Your task to perform on an android device: open app "Pandora - Music & Podcasts" (install if not already installed) and enter user name: "creator@yahoo.com" and password: "valuable" Image 0: 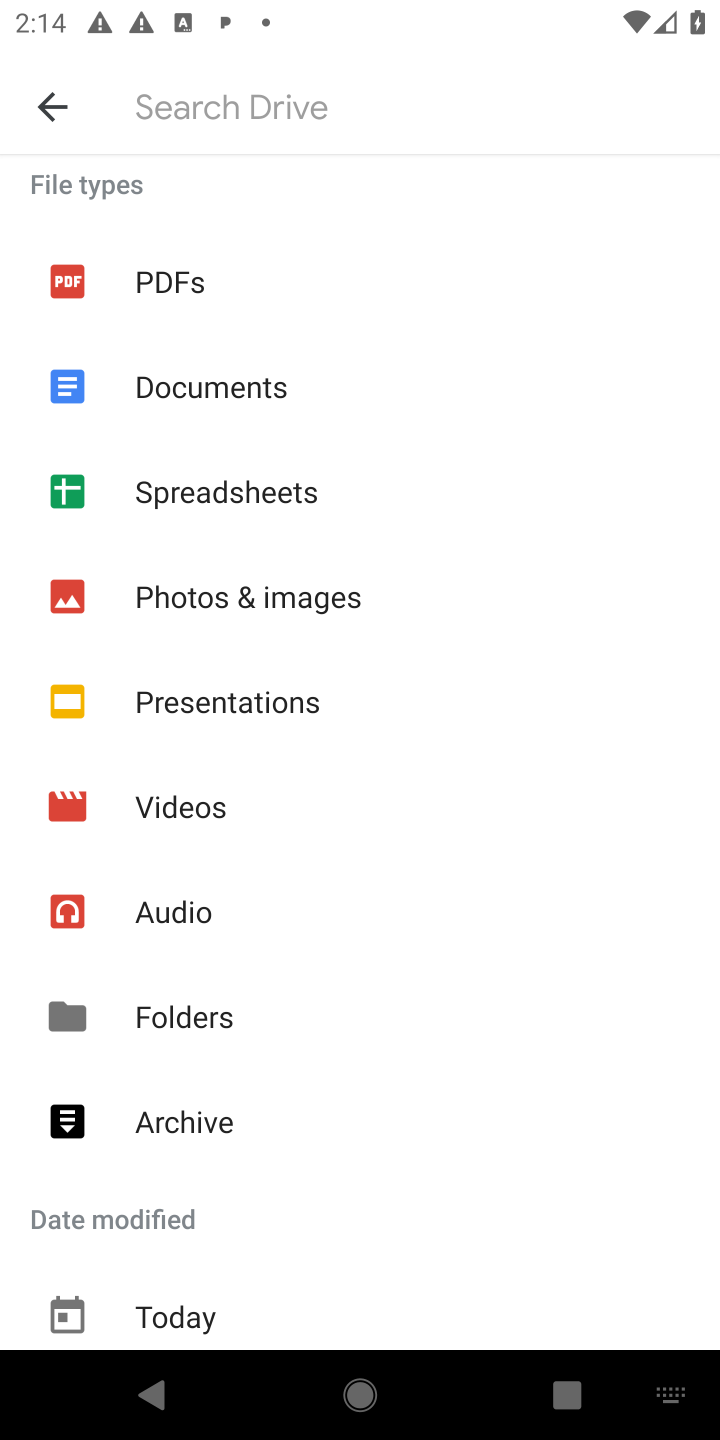
Step 0: press home button
Your task to perform on an android device: open app "Pandora - Music & Podcasts" (install if not already installed) and enter user name: "creator@yahoo.com" and password: "valuable" Image 1: 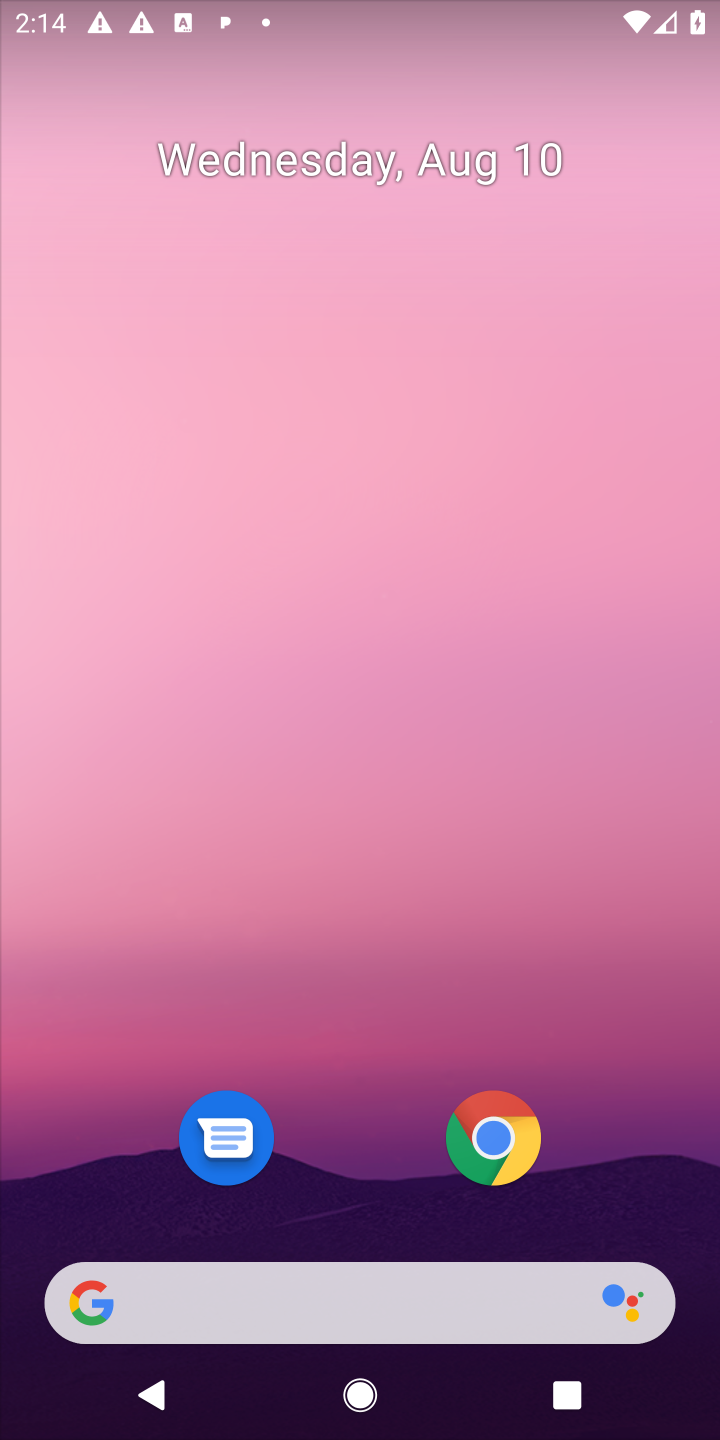
Step 1: drag from (373, 1146) to (446, 57)
Your task to perform on an android device: open app "Pandora - Music & Podcasts" (install if not already installed) and enter user name: "creator@yahoo.com" and password: "valuable" Image 2: 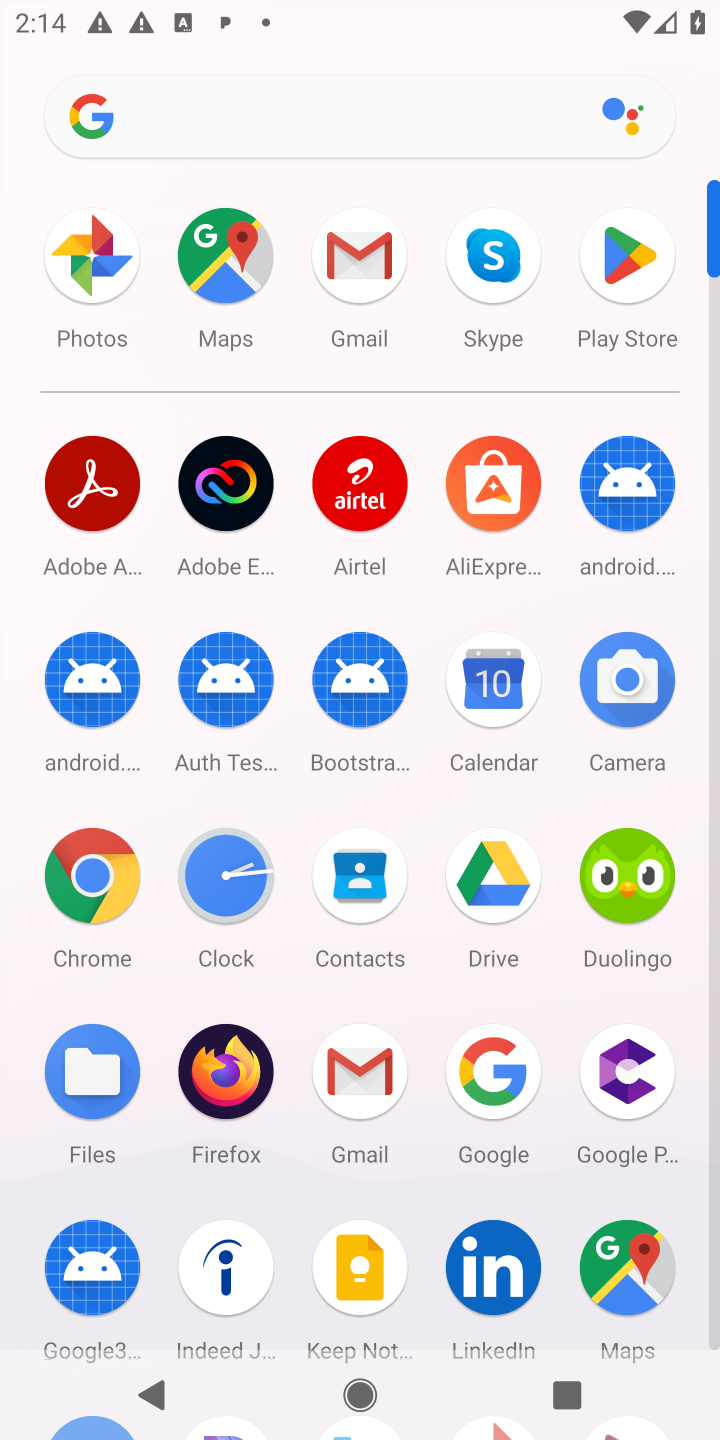
Step 2: click (613, 257)
Your task to perform on an android device: open app "Pandora - Music & Podcasts" (install if not already installed) and enter user name: "creator@yahoo.com" and password: "valuable" Image 3: 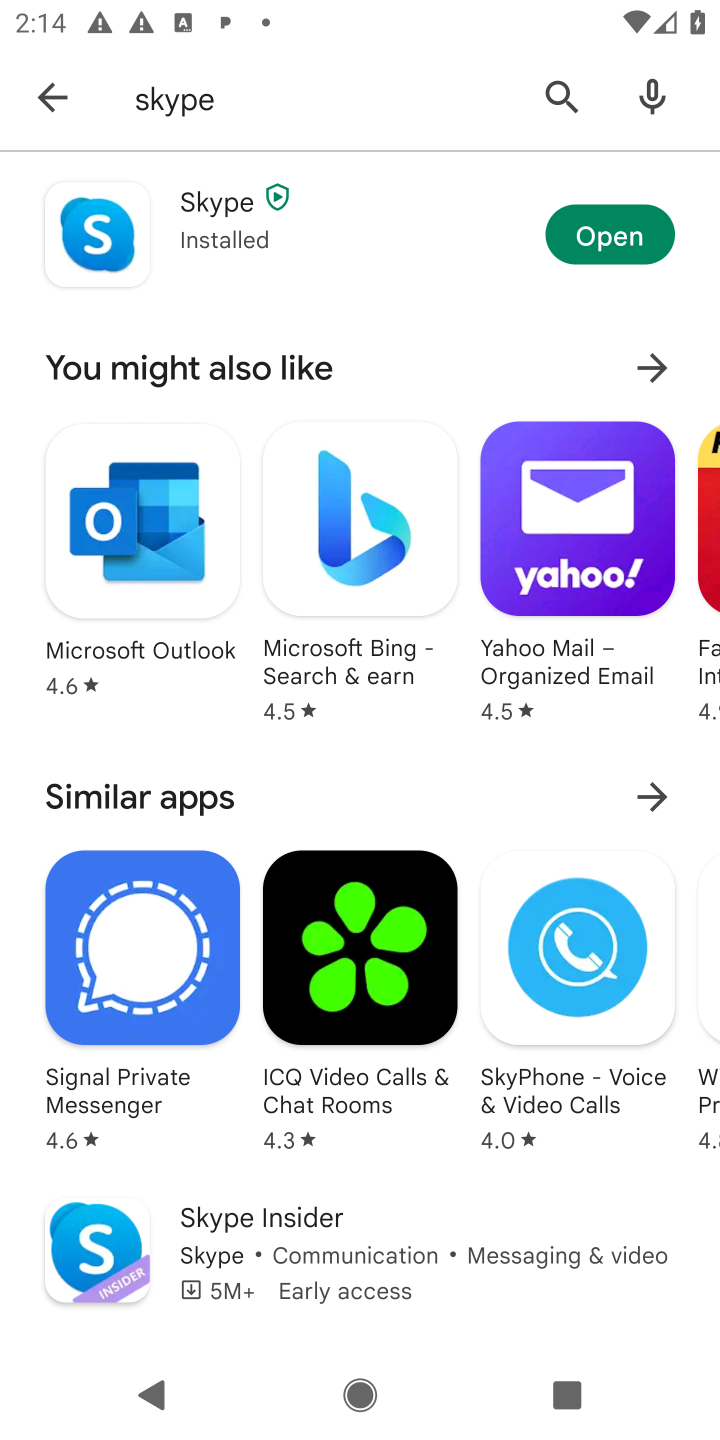
Step 3: click (569, 100)
Your task to perform on an android device: open app "Pandora - Music & Podcasts" (install if not already installed) and enter user name: "creator@yahoo.com" and password: "valuable" Image 4: 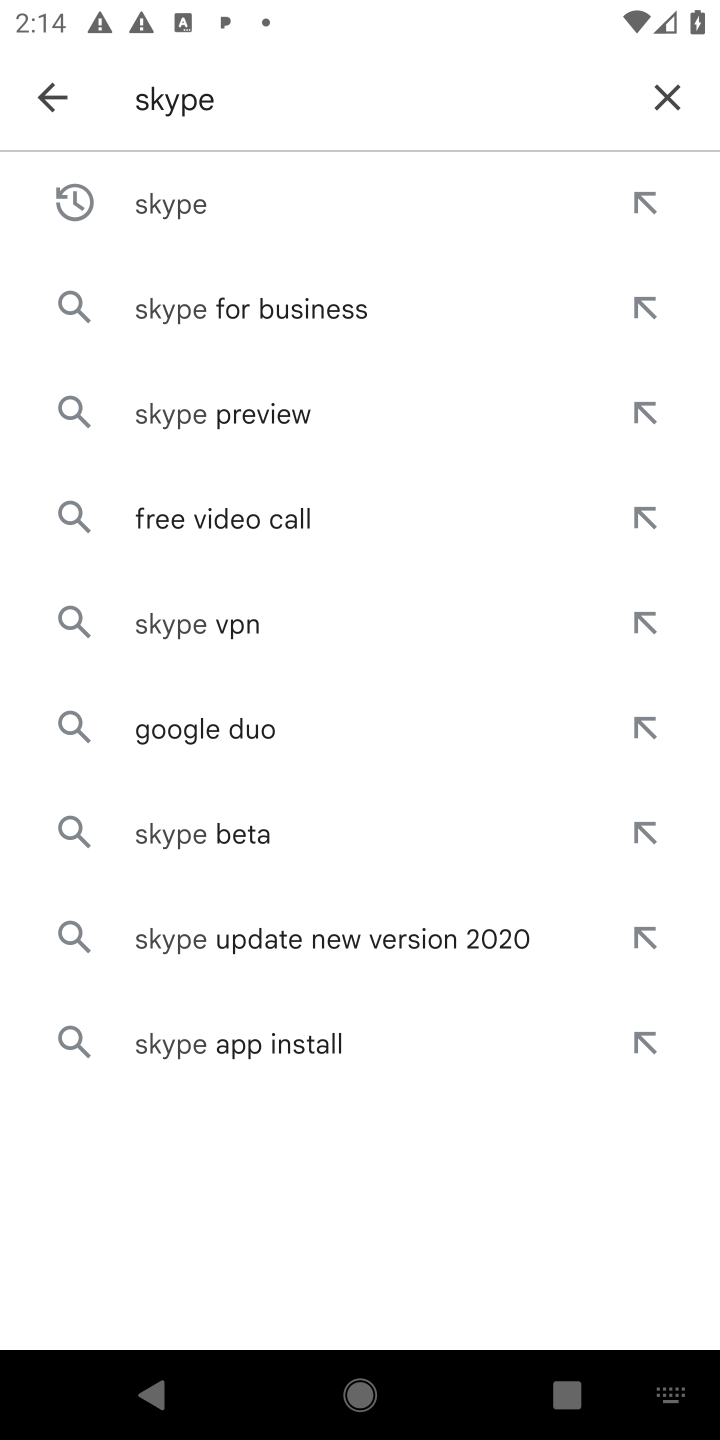
Step 4: click (680, 95)
Your task to perform on an android device: open app "Pandora - Music & Podcasts" (install if not already installed) and enter user name: "creator@yahoo.com" and password: "valuable" Image 5: 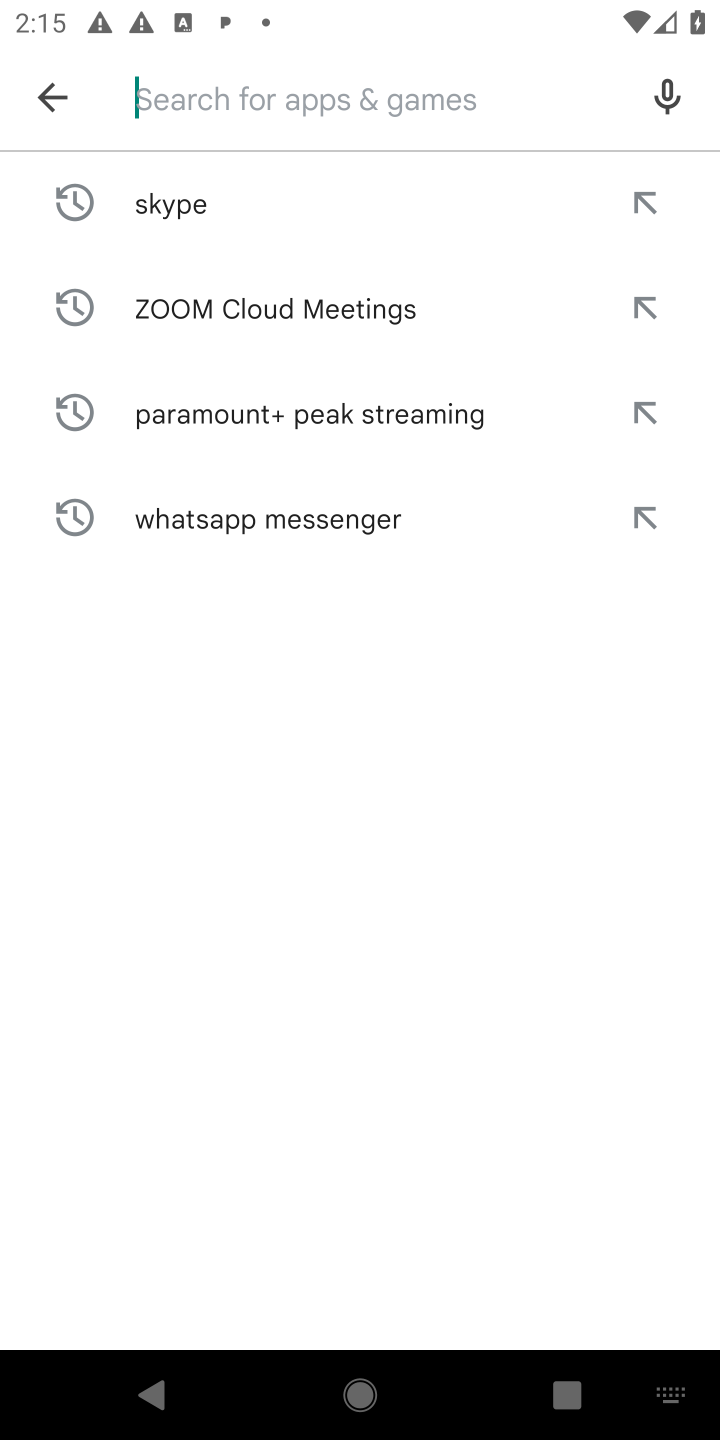
Step 5: type "Pandora - Music & Podcasts"
Your task to perform on an android device: open app "Pandora - Music & Podcasts" (install if not already installed) and enter user name: "creator@yahoo.com" and password: "valuable" Image 6: 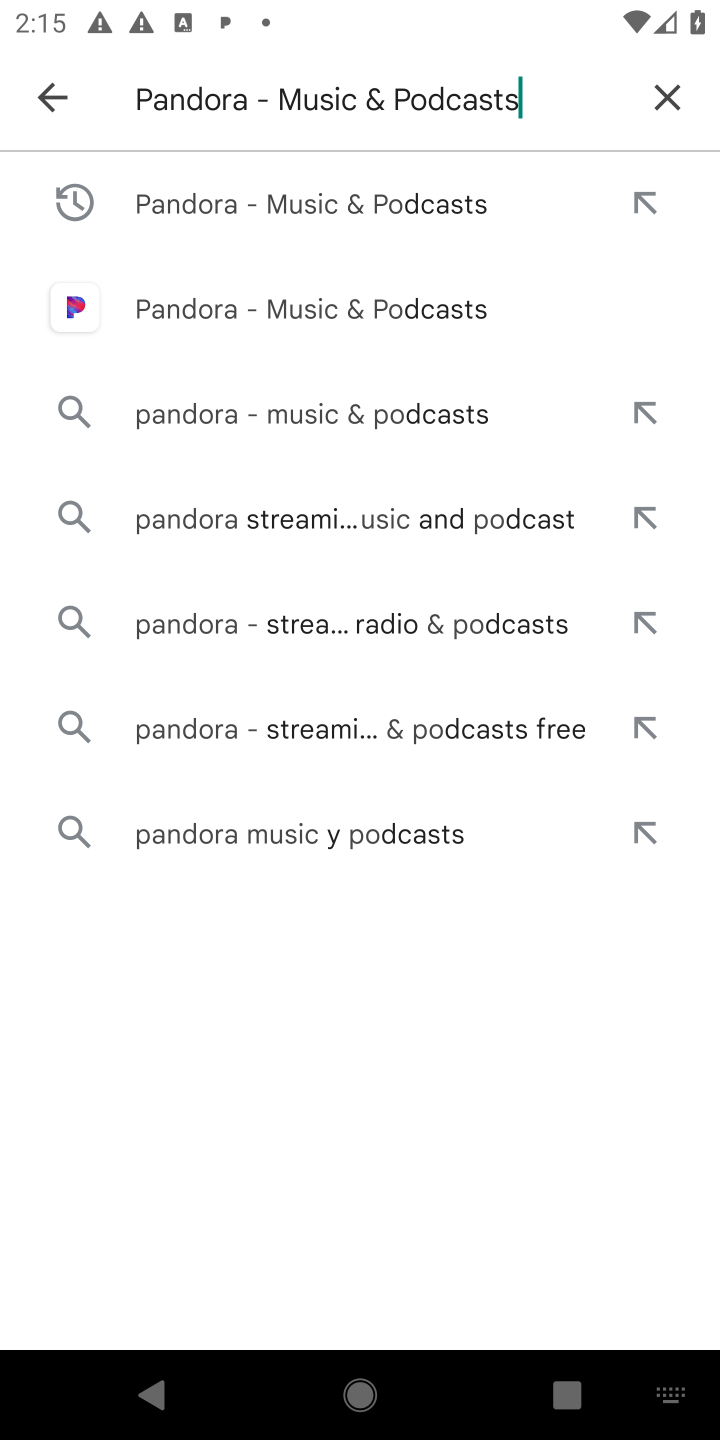
Step 6: press enter
Your task to perform on an android device: open app "Pandora - Music & Podcasts" (install if not already installed) and enter user name: "creator@yahoo.com" and password: "valuable" Image 7: 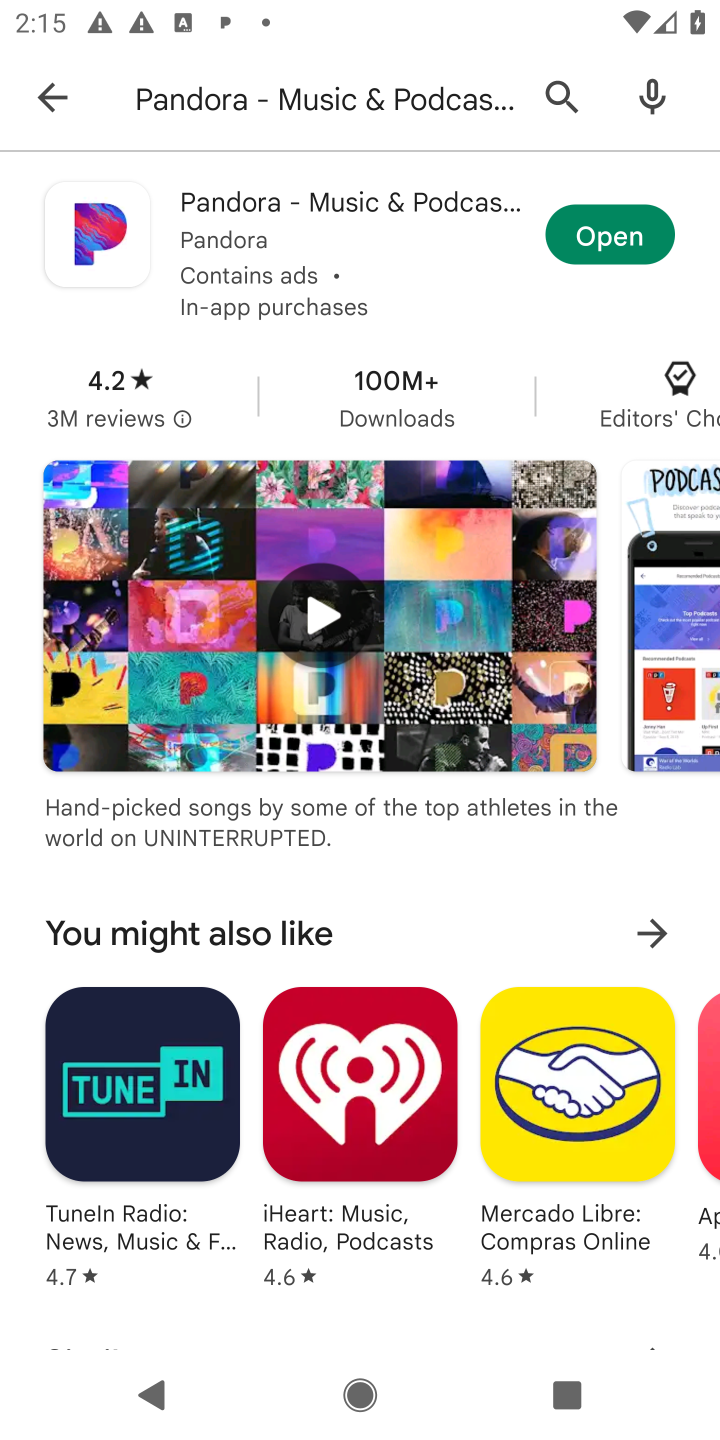
Step 7: click (600, 235)
Your task to perform on an android device: open app "Pandora - Music & Podcasts" (install if not already installed) and enter user name: "creator@yahoo.com" and password: "valuable" Image 8: 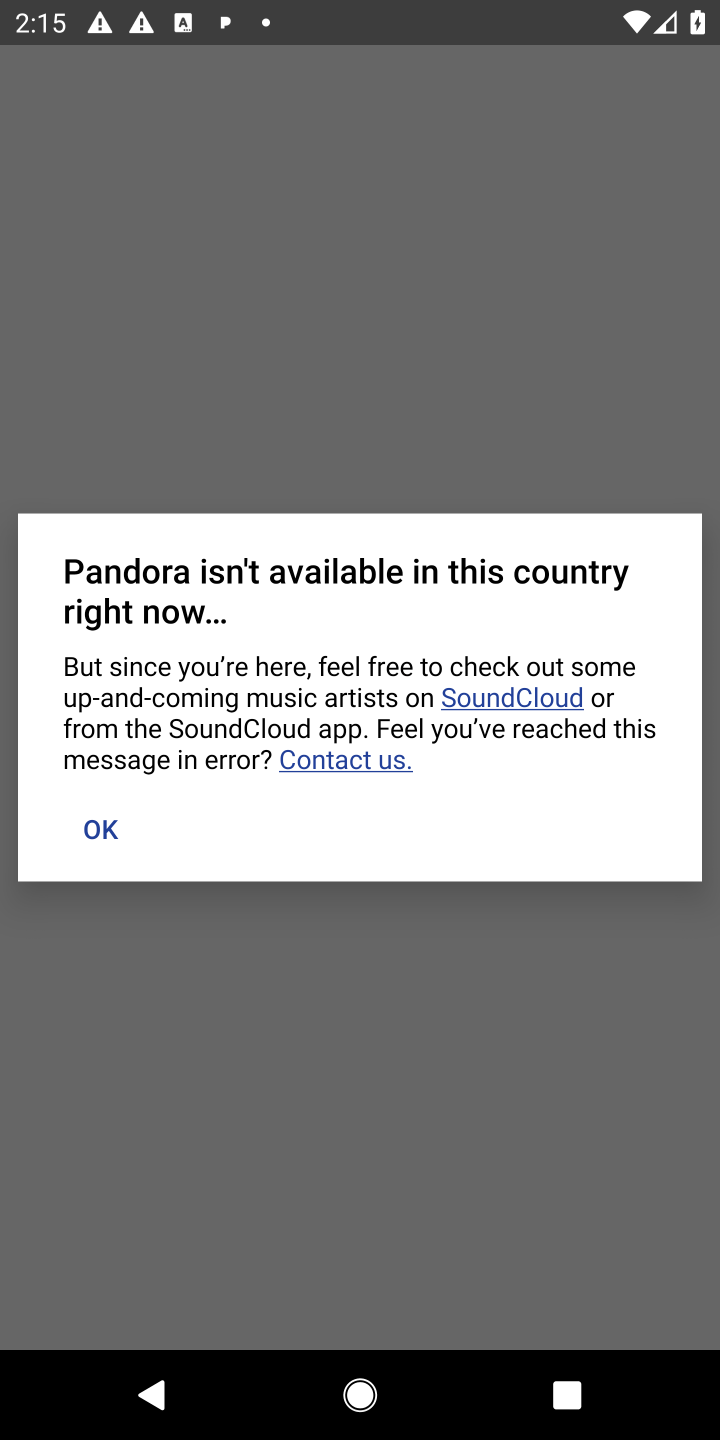
Step 8: click (82, 839)
Your task to perform on an android device: open app "Pandora - Music & Podcasts" (install if not already installed) and enter user name: "creator@yahoo.com" and password: "valuable" Image 9: 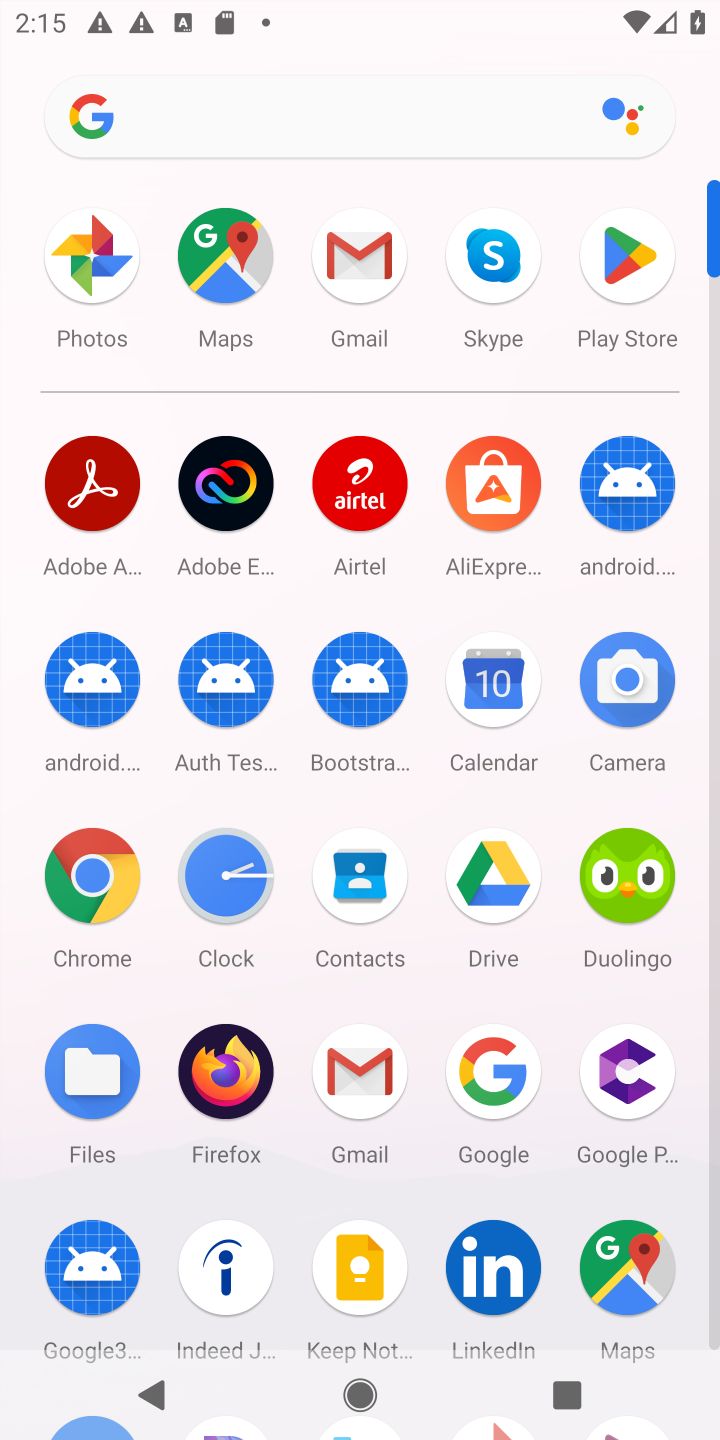
Step 9: task complete